Your task to perform on an android device: check storage Image 0: 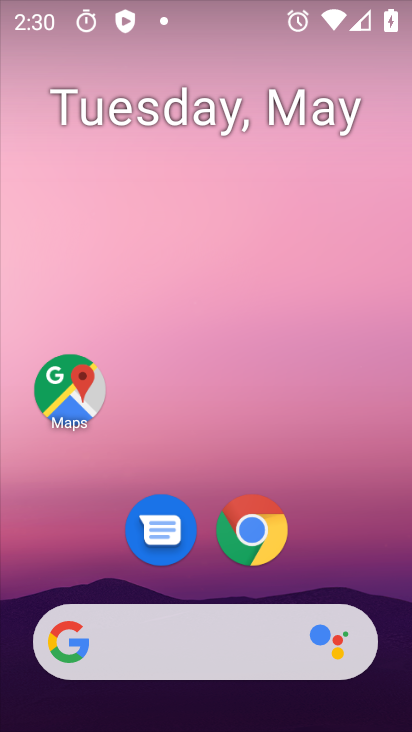
Step 0: drag from (219, 590) to (146, 67)
Your task to perform on an android device: check storage Image 1: 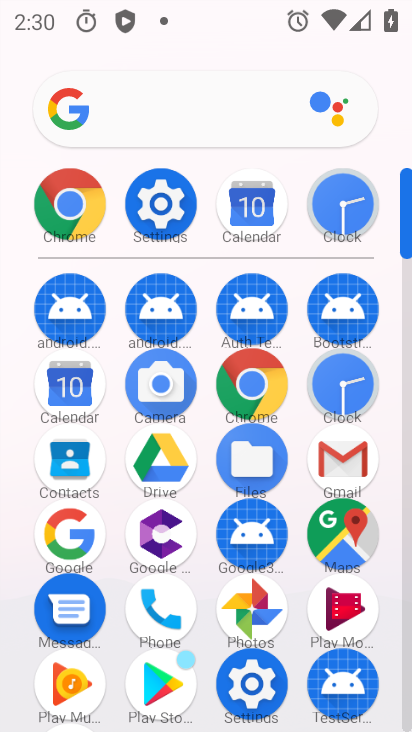
Step 1: click (181, 209)
Your task to perform on an android device: check storage Image 2: 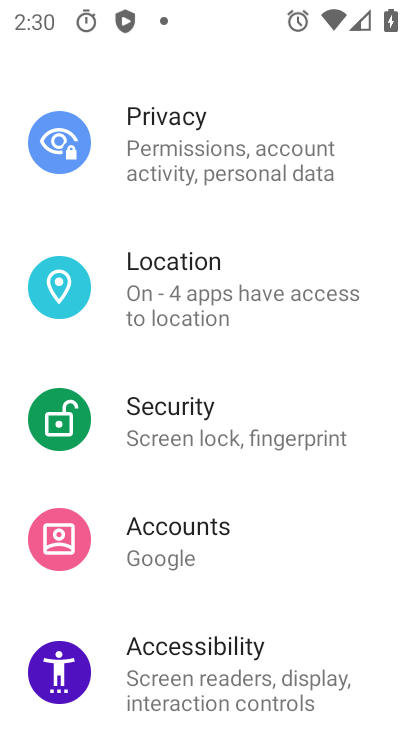
Step 2: drag from (184, 222) to (225, 539)
Your task to perform on an android device: check storage Image 3: 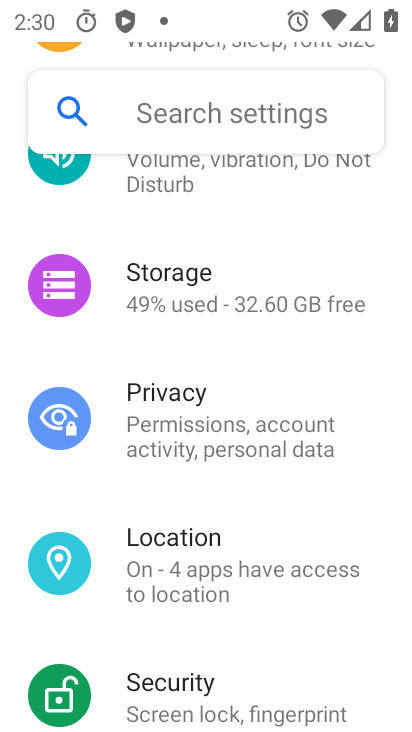
Step 3: click (176, 297)
Your task to perform on an android device: check storage Image 4: 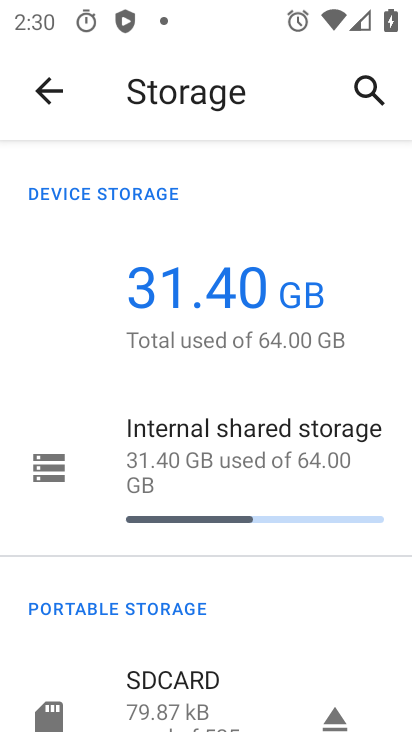
Step 4: click (245, 482)
Your task to perform on an android device: check storage Image 5: 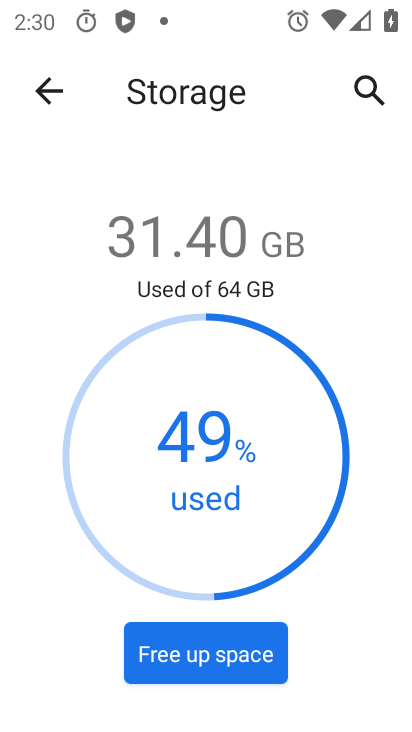
Step 5: task complete